Your task to perform on an android device: open a new tab in the chrome app Image 0: 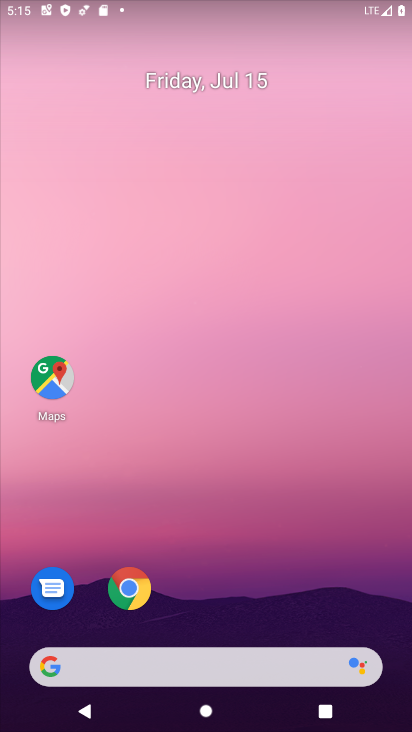
Step 0: drag from (224, 586) to (318, 0)
Your task to perform on an android device: open a new tab in the chrome app Image 1: 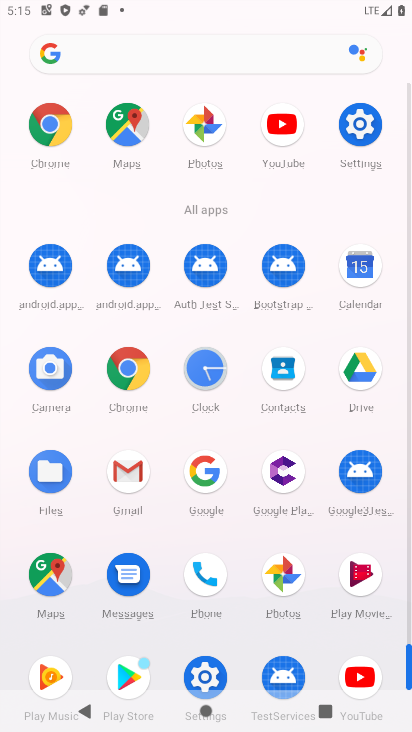
Step 1: click (136, 369)
Your task to perform on an android device: open a new tab in the chrome app Image 2: 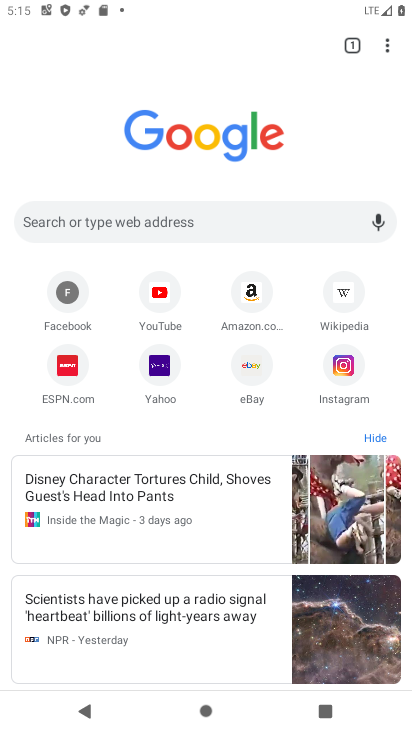
Step 2: click (387, 48)
Your task to perform on an android device: open a new tab in the chrome app Image 3: 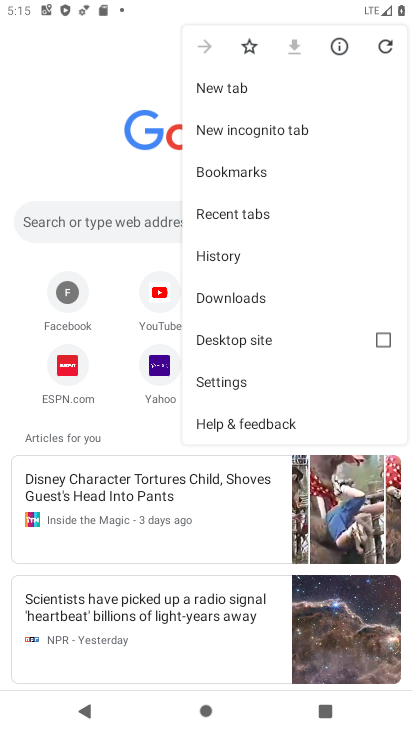
Step 3: click (297, 88)
Your task to perform on an android device: open a new tab in the chrome app Image 4: 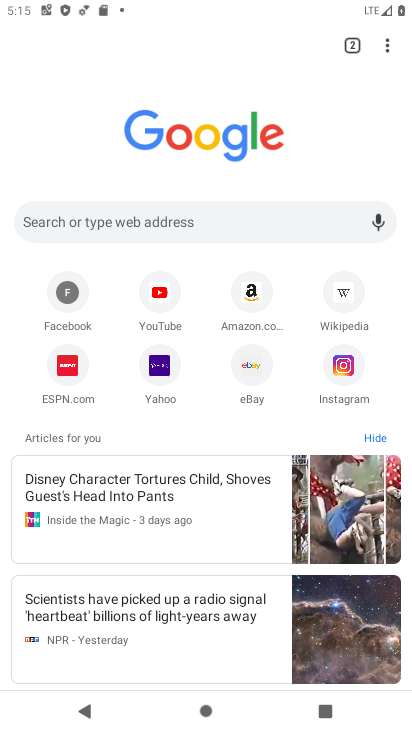
Step 4: task complete